Your task to perform on an android device: add a contact Image 0: 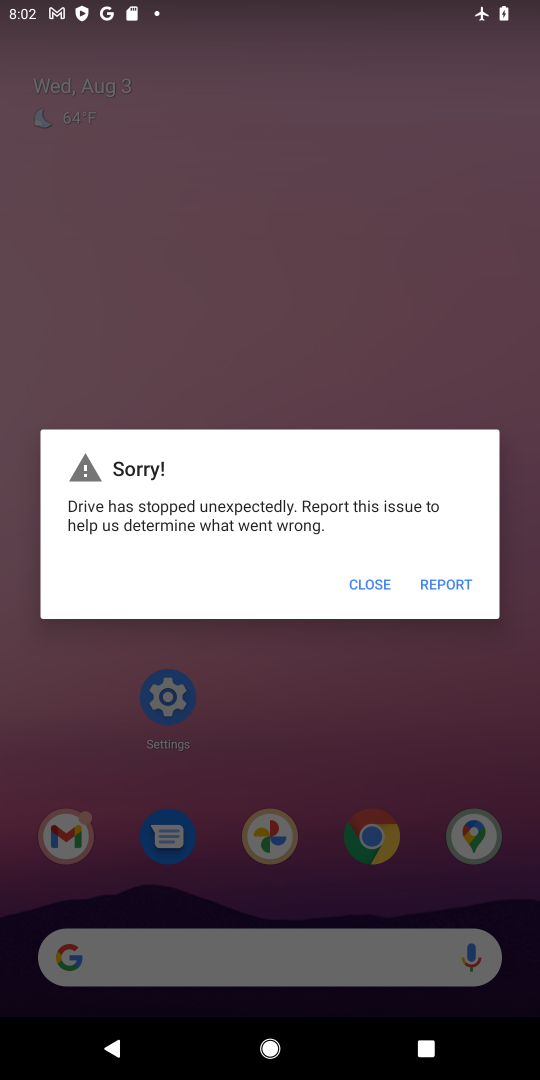
Step 0: press home button
Your task to perform on an android device: add a contact Image 1: 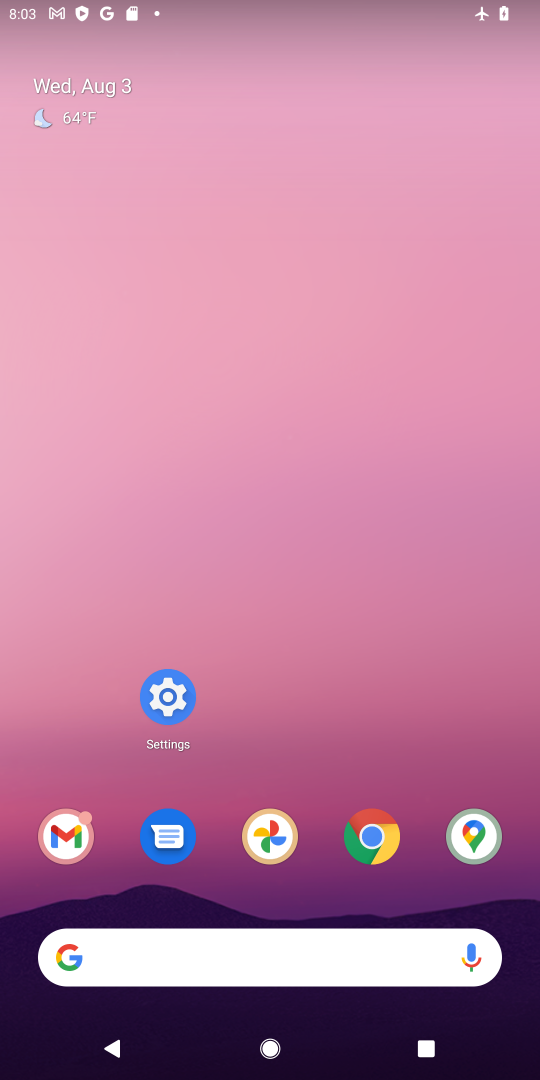
Step 1: click (159, 709)
Your task to perform on an android device: add a contact Image 2: 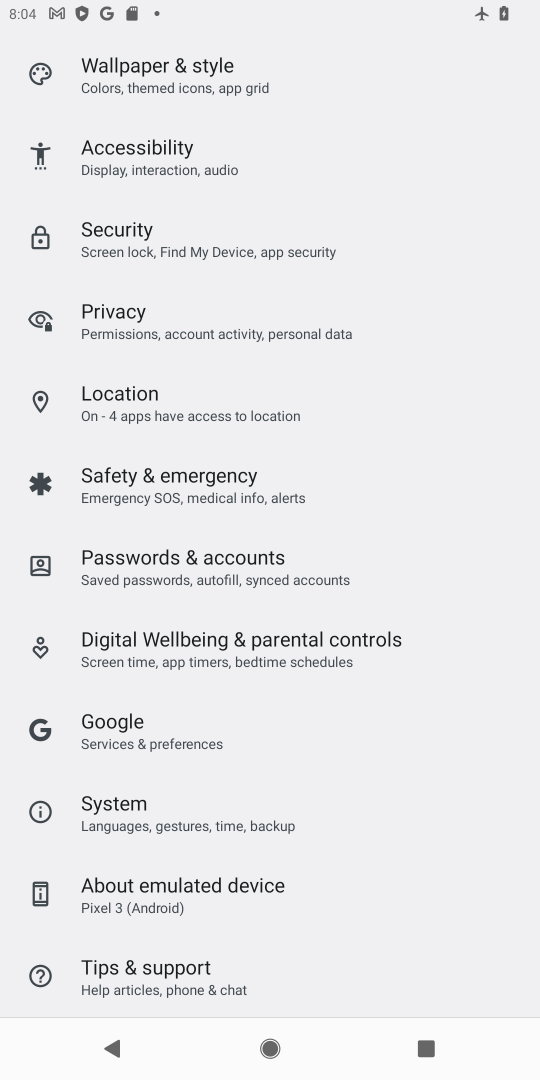
Step 2: press home button
Your task to perform on an android device: add a contact Image 3: 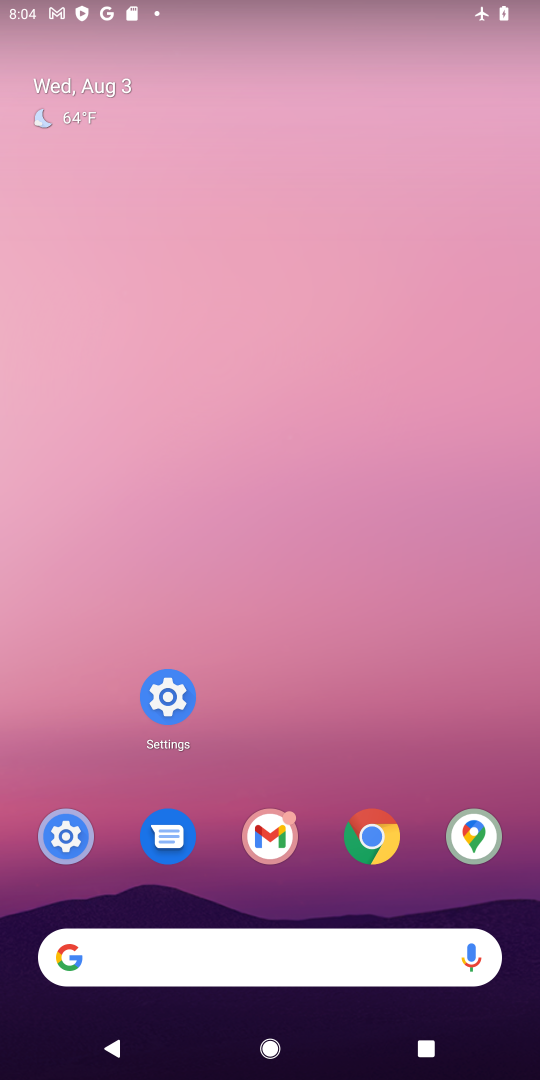
Step 3: drag from (511, 816) to (436, 78)
Your task to perform on an android device: add a contact Image 4: 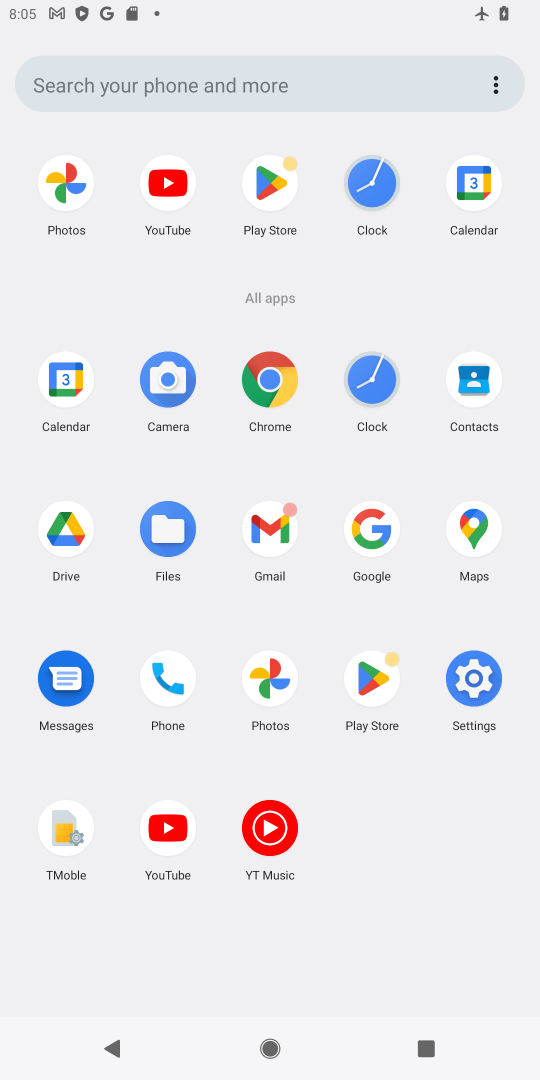
Step 4: click (469, 381)
Your task to perform on an android device: add a contact Image 5: 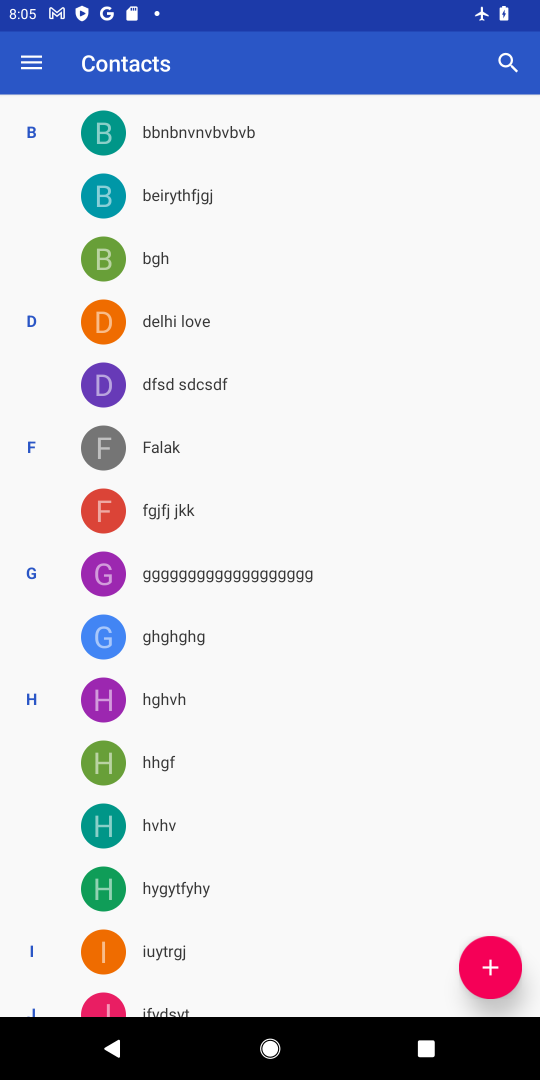
Step 5: click (482, 947)
Your task to perform on an android device: add a contact Image 6: 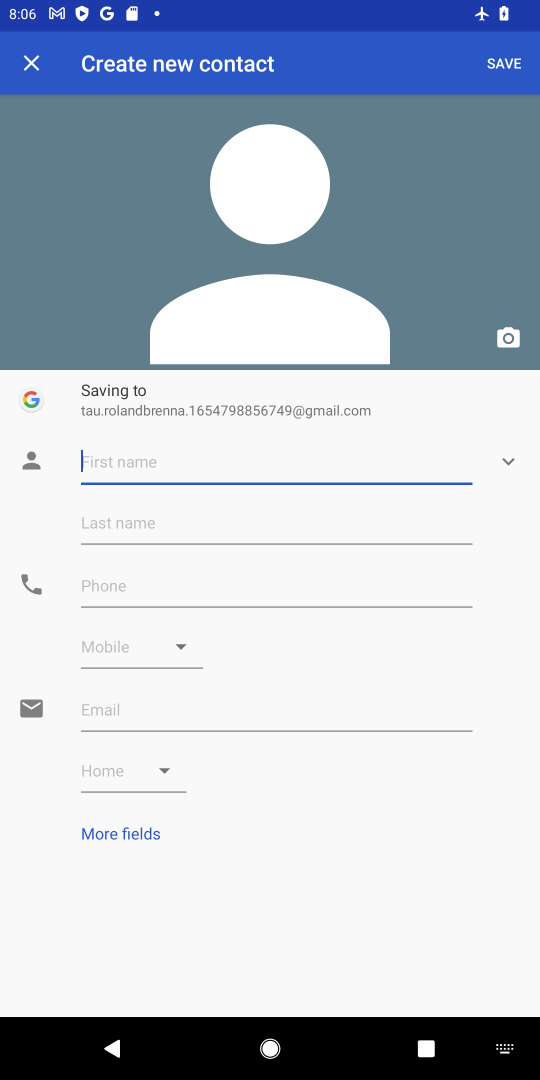
Step 6: type "hffgcgfcgf"
Your task to perform on an android device: add a contact Image 7: 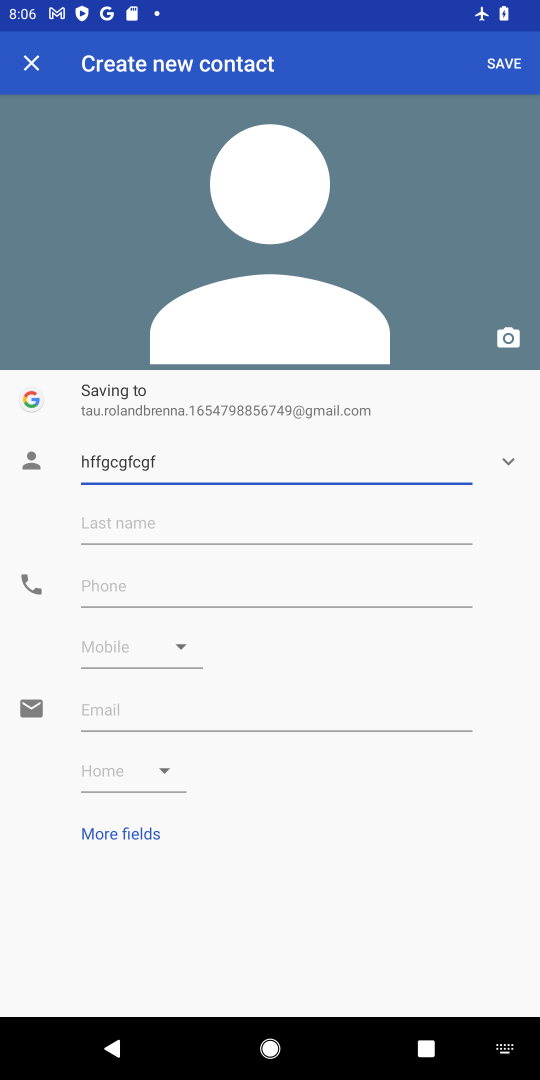
Step 7: click (164, 523)
Your task to perform on an android device: add a contact Image 8: 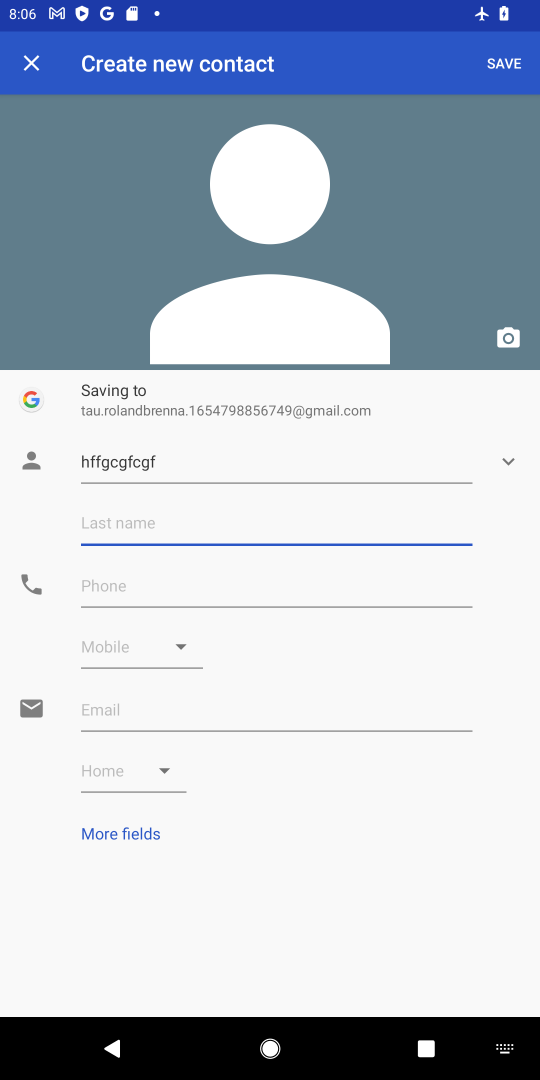
Step 8: type "rdfhffhcf"
Your task to perform on an android device: add a contact Image 9: 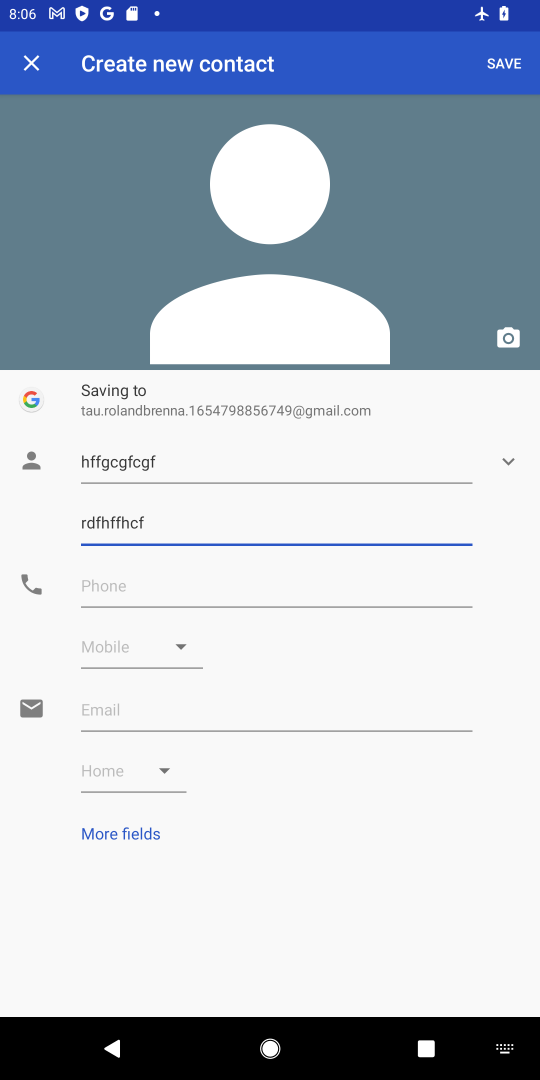
Step 9: click (168, 591)
Your task to perform on an android device: add a contact Image 10: 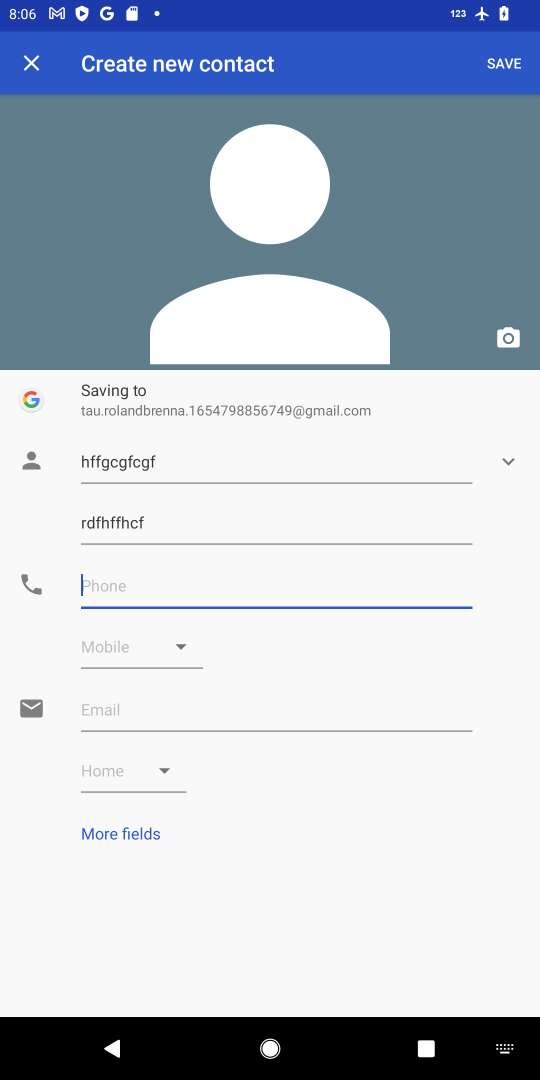
Step 10: type "54565643464"
Your task to perform on an android device: add a contact Image 11: 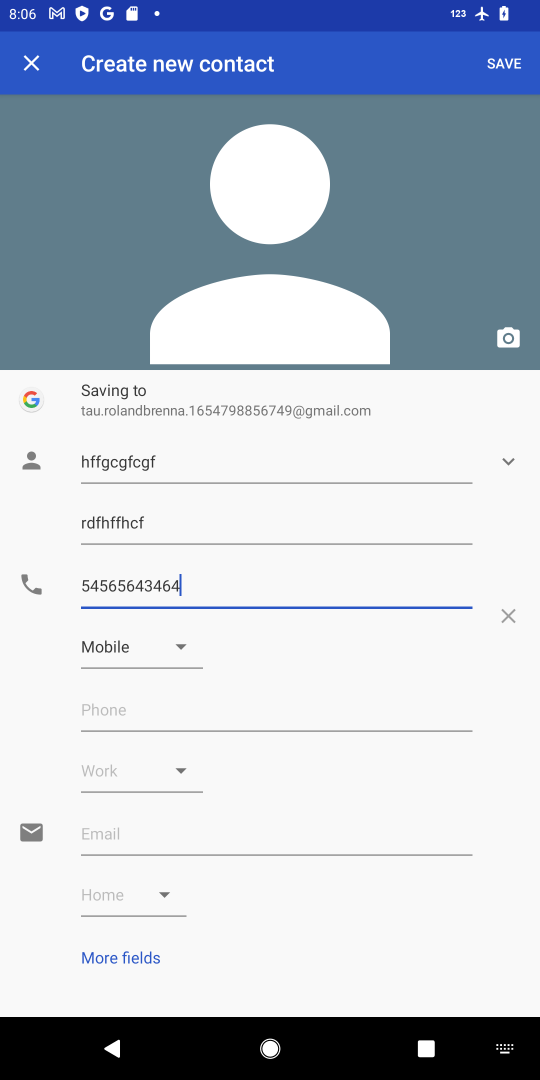
Step 11: click (510, 63)
Your task to perform on an android device: add a contact Image 12: 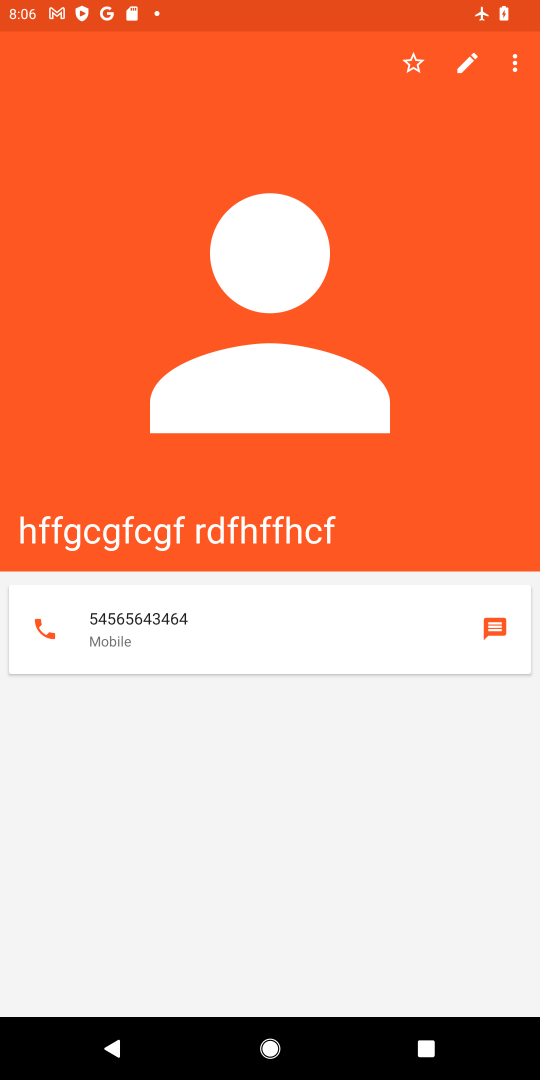
Step 12: task complete